Your task to perform on an android device: Do I have any events this weekend? Image 0: 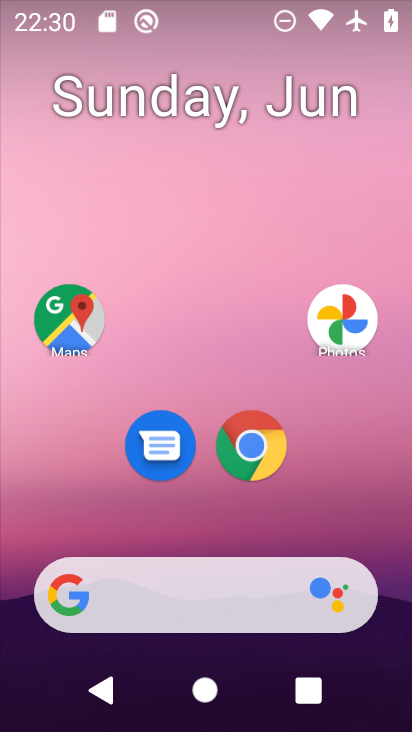
Step 0: press home button
Your task to perform on an android device: Do I have any events this weekend? Image 1: 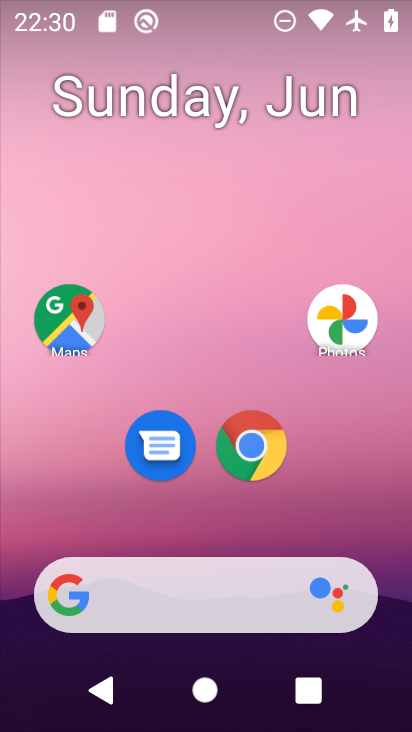
Step 1: drag from (193, 530) to (178, 129)
Your task to perform on an android device: Do I have any events this weekend? Image 2: 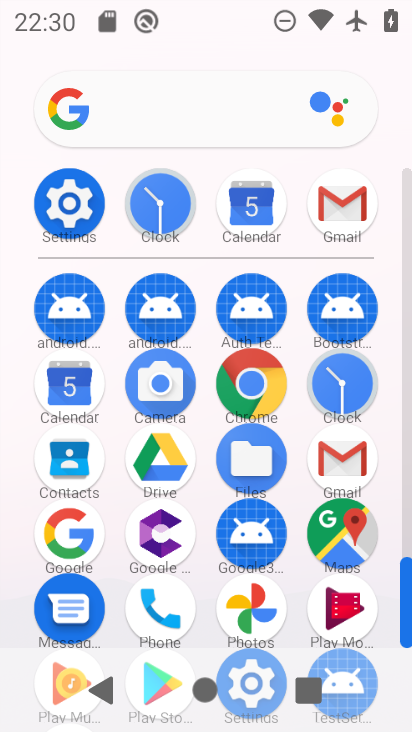
Step 2: click (70, 400)
Your task to perform on an android device: Do I have any events this weekend? Image 3: 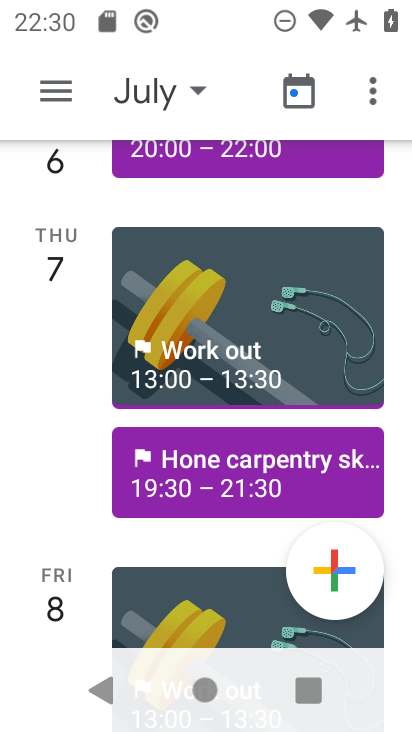
Step 3: click (74, 92)
Your task to perform on an android device: Do I have any events this weekend? Image 4: 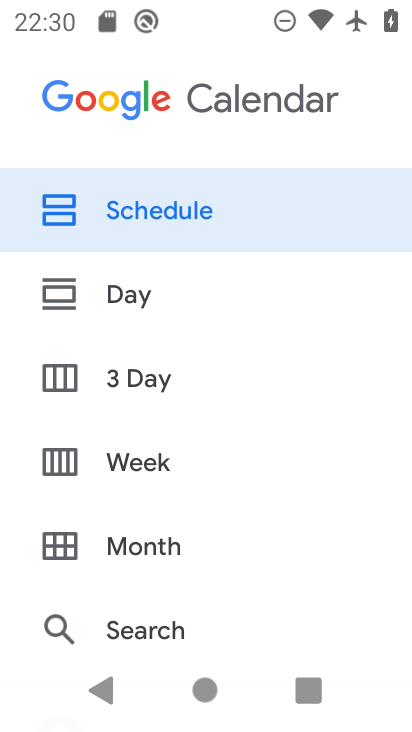
Step 4: click (187, 226)
Your task to perform on an android device: Do I have any events this weekend? Image 5: 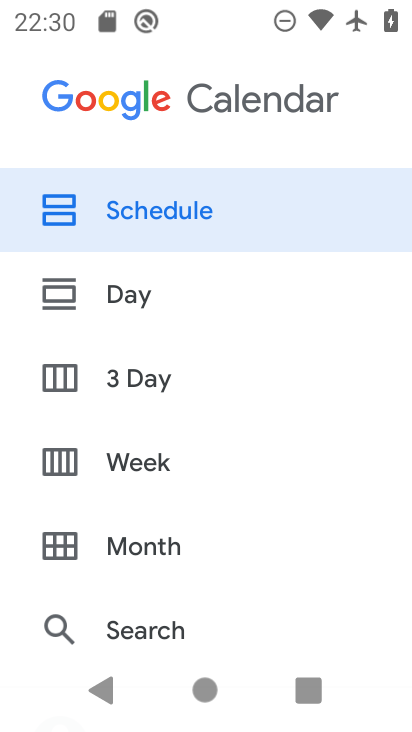
Step 5: task complete